Your task to perform on an android device: Search for sushi restaurants on Maps Image 0: 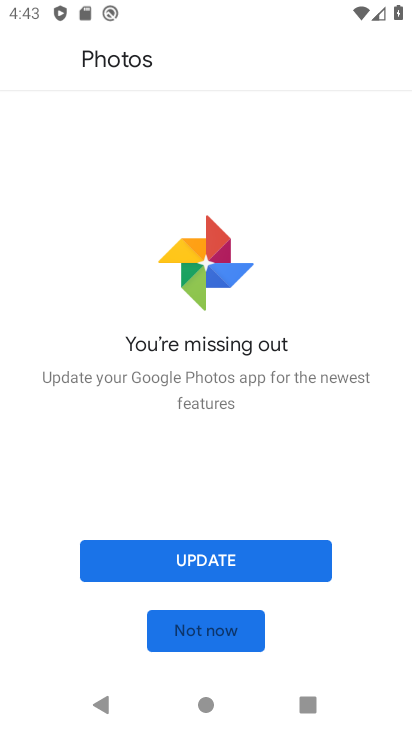
Step 0: press home button
Your task to perform on an android device: Search for sushi restaurants on Maps Image 1: 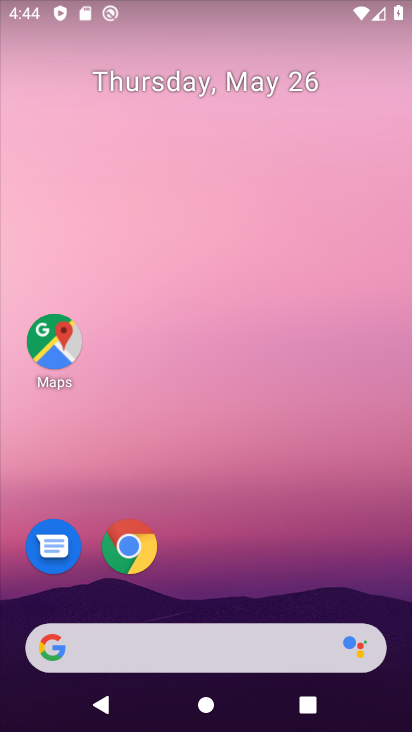
Step 1: drag from (233, 599) to (178, 13)
Your task to perform on an android device: Search for sushi restaurants on Maps Image 2: 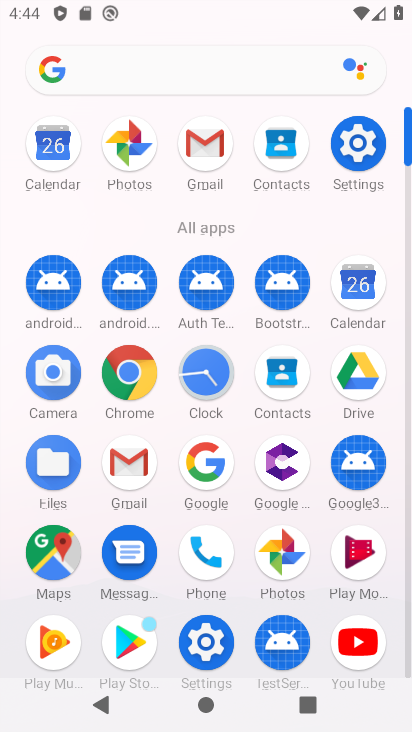
Step 2: click (48, 555)
Your task to perform on an android device: Search for sushi restaurants on Maps Image 3: 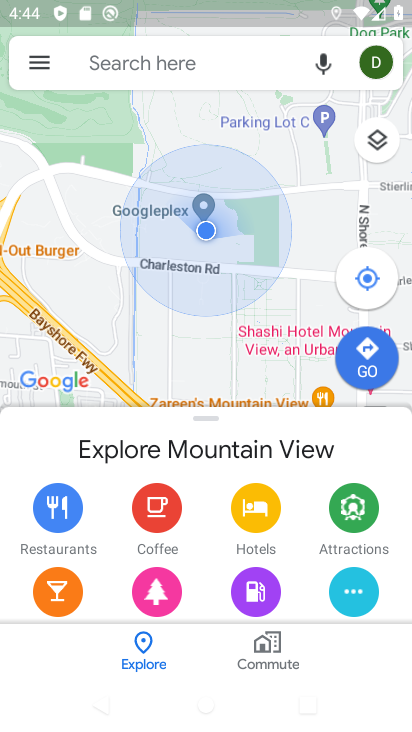
Step 3: click (136, 59)
Your task to perform on an android device: Search for sushi restaurants on Maps Image 4: 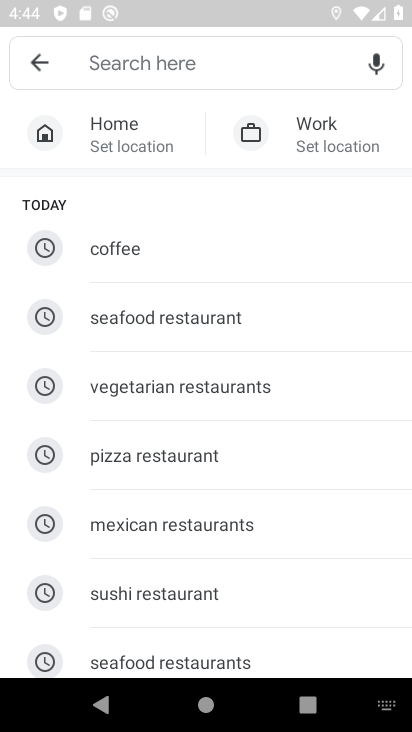
Step 4: click (267, 599)
Your task to perform on an android device: Search for sushi restaurants on Maps Image 5: 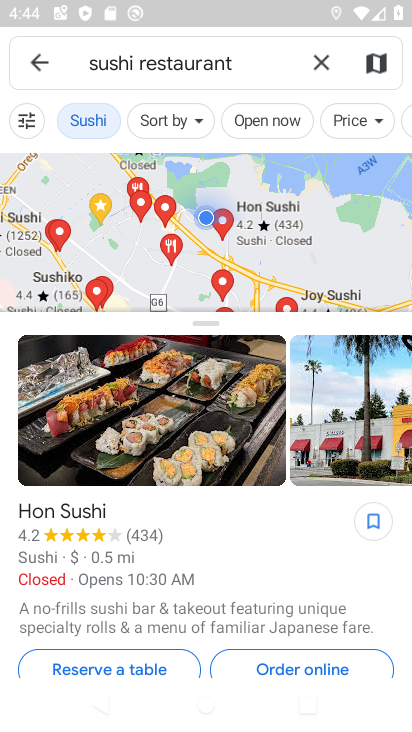
Step 5: task complete